Your task to perform on an android device: Open settings on Google Maps Image 0: 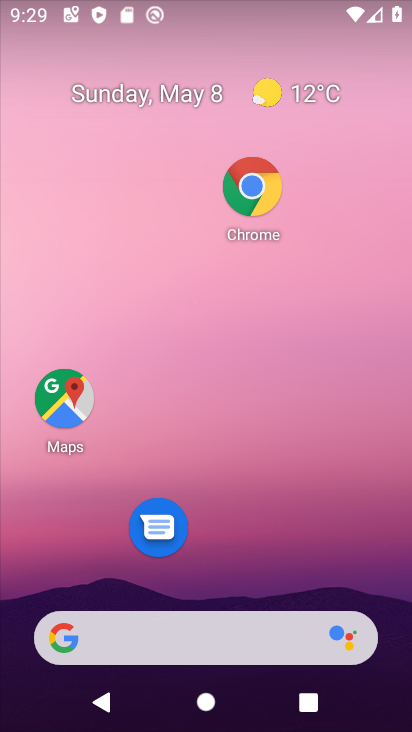
Step 0: drag from (263, 573) to (316, 279)
Your task to perform on an android device: Open settings on Google Maps Image 1: 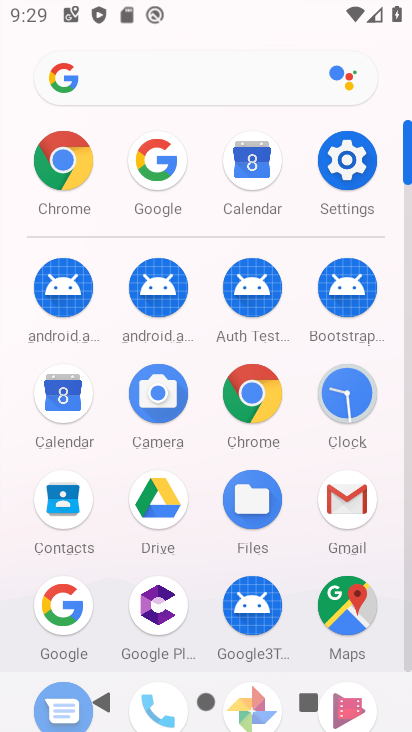
Step 1: click (337, 609)
Your task to perform on an android device: Open settings on Google Maps Image 2: 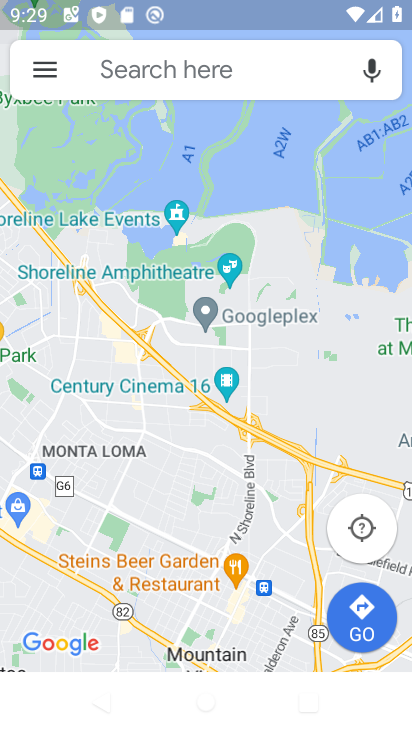
Step 2: click (37, 73)
Your task to perform on an android device: Open settings on Google Maps Image 3: 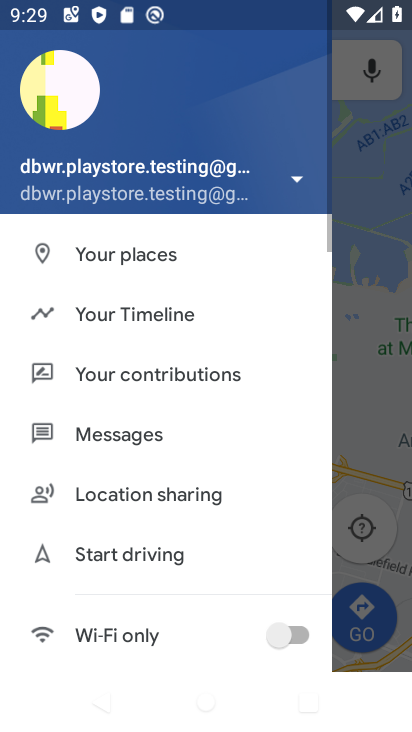
Step 3: drag from (132, 614) to (222, 230)
Your task to perform on an android device: Open settings on Google Maps Image 4: 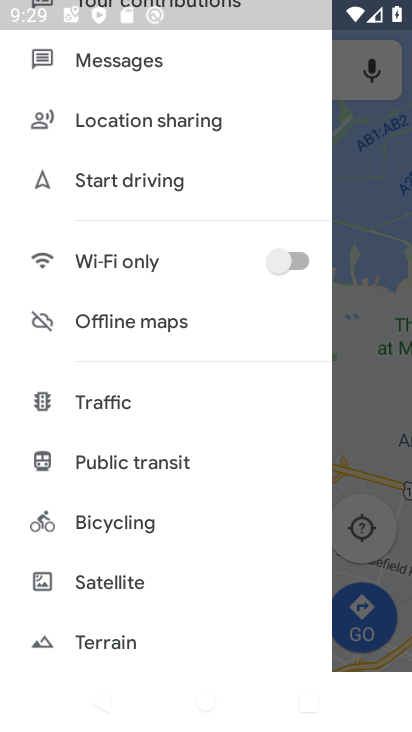
Step 4: drag from (121, 549) to (203, 143)
Your task to perform on an android device: Open settings on Google Maps Image 5: 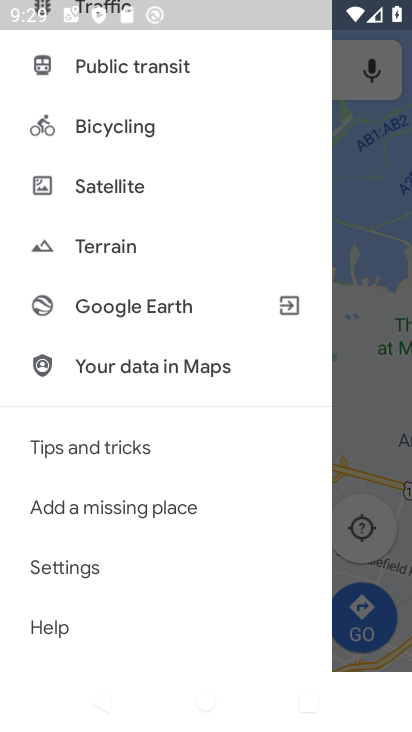
Step 5: click (70, 561)
Your task to perform on an android device: Open settings on Google Maps Image 6: 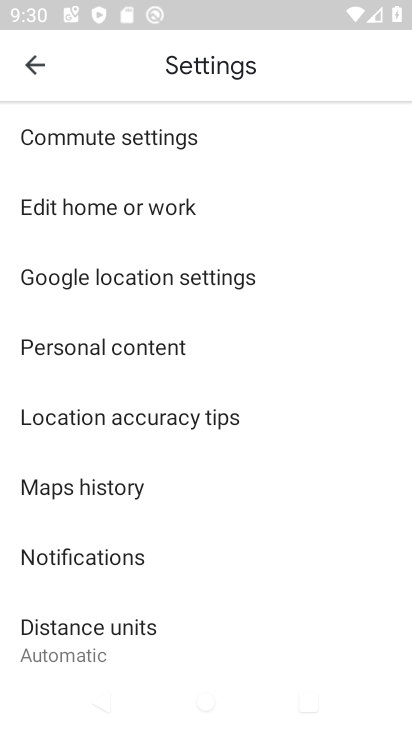
Step 6: task complete